Your task to perform on an android device: Open calendar and show me the second week of next month Image 0: 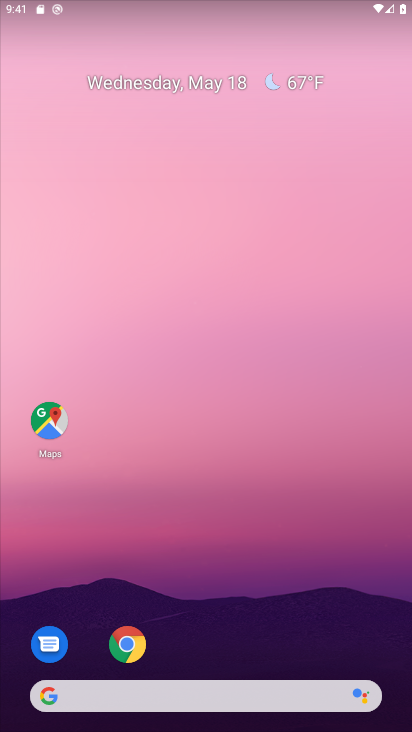
Step 0: drag from (255, 612) to (226, 11)
Your task to perform on an android device: Open calendar and show me the second week of next month Image 1: 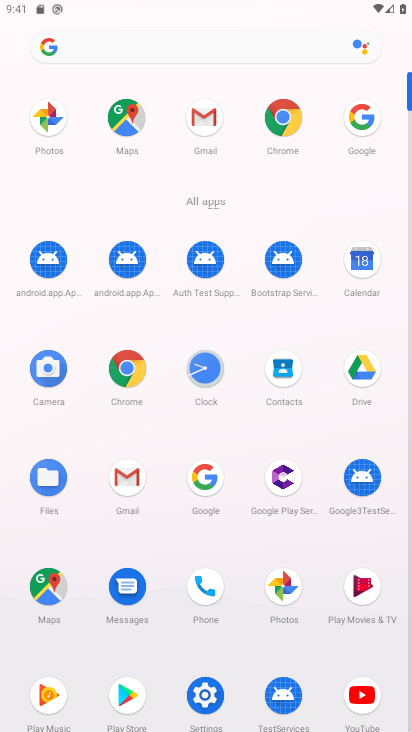
Step 1: click (362, 261)
Your task to perform on an android device: Open calendar and show me the second week of next month Image 2: 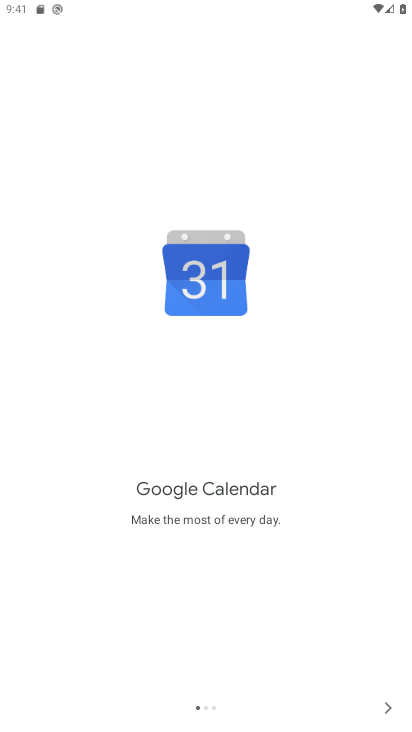
Step 2: click (390, 707)
Your task to perform on an android device: Open calendar and show me the second week of next month Image 3: 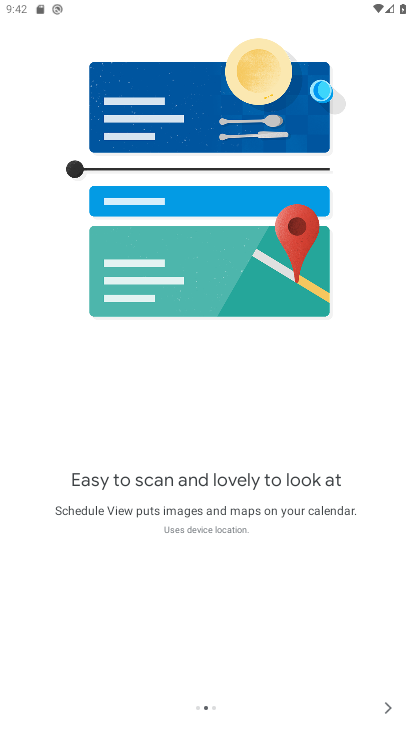
Step 3: click (390, 707)
Your task to perform on an android device: Open calendar and show me the second week of next month Image 4: 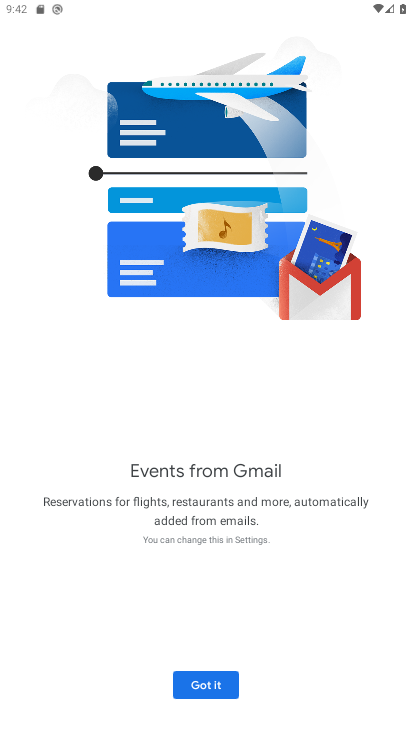
Step 4: click (206, 682)
Your task to perform on an android device: Open calendar and show me the second week of next month Image 5: 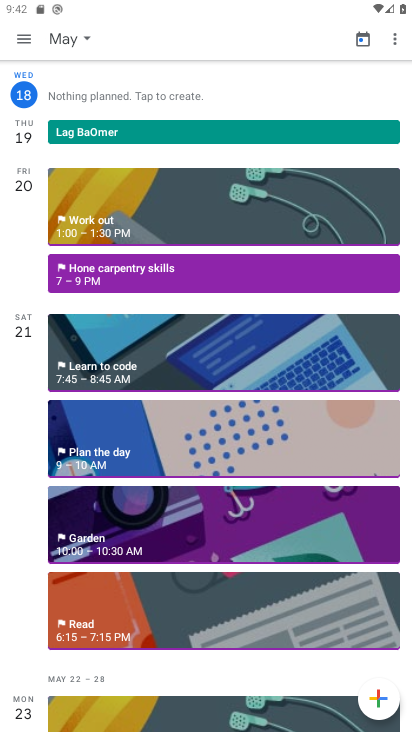
Step 5: click (366, 40)
Your task to perform on an android device: Open calendar and show me the second week of next month Image 6: 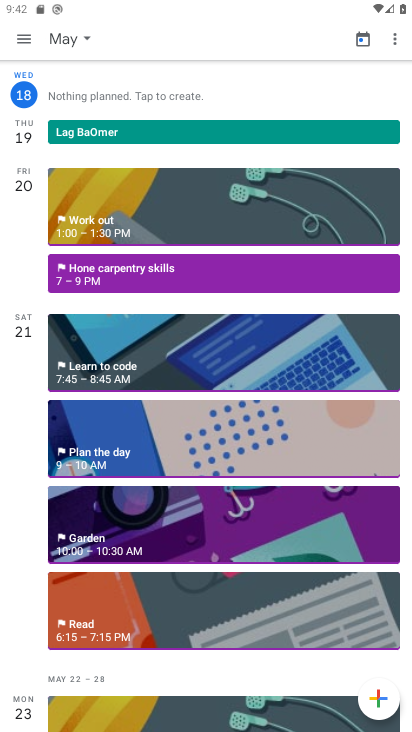
Step 6: click (86, 38)
Your task to perform on an android device: Open calendar and show me the second week of next month Image 7: 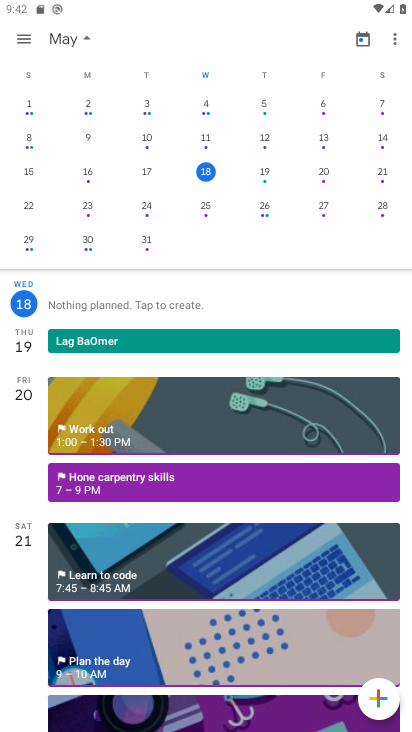
Step 7: drag from (349, 185) to (2, 173)
Your task to perform on an android device: Open calendar and show me the second week of next month Image 8: 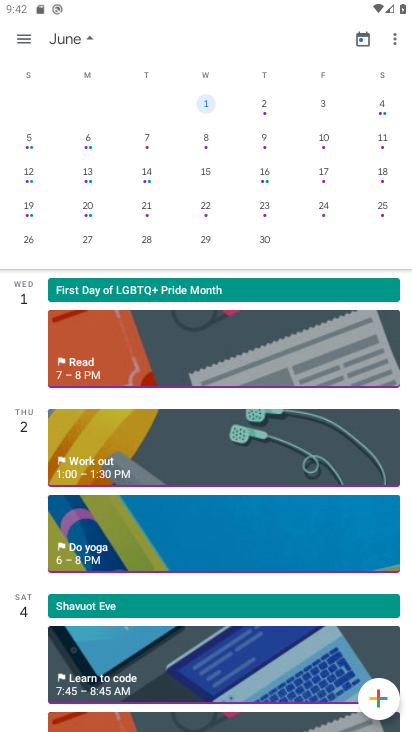
Step 8: click (86, 172)
Your task to perform on an android device: Open calendar and show me the second week of next month Image 9: 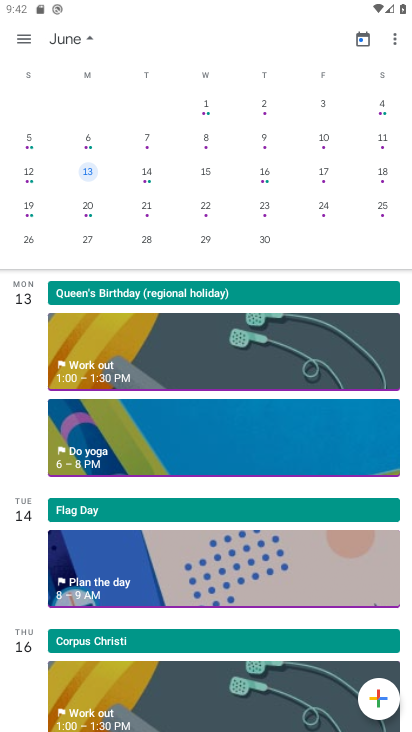
Step 9: click (29, 35)
Your task to perform on an android device: Open calendar and show me the second week of next month Image 10: 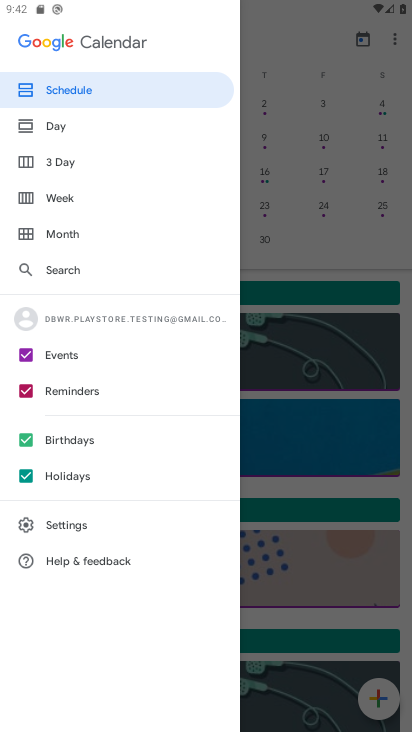
Step 10: click (73, 194)
Your task to perform on an android device: Open calendar and show me the second week of next month Image 11: 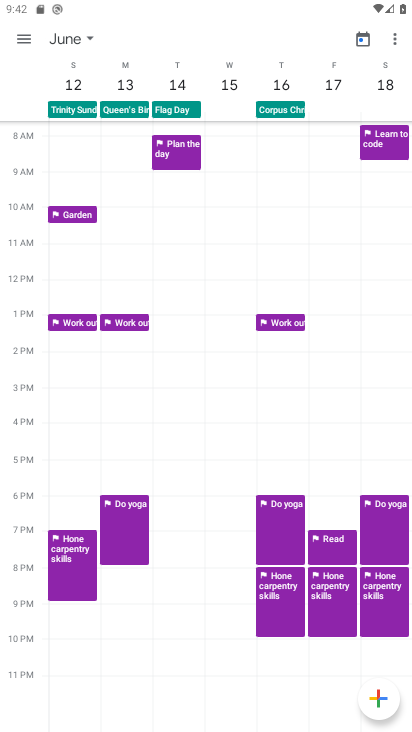
Step 11: task complete